Your task to perform on an android device: turn off javascript in the chrome app Image 0: 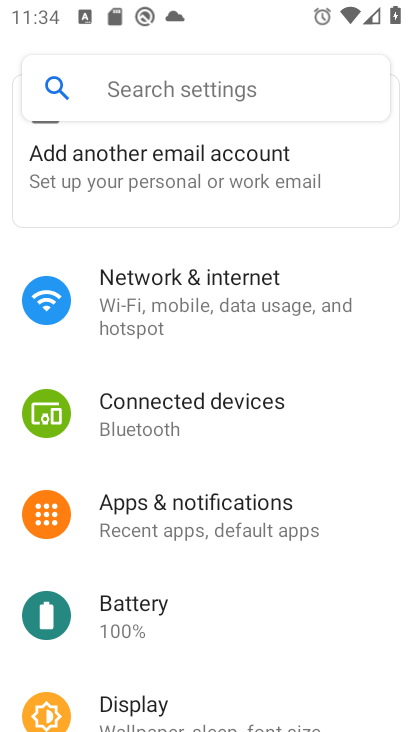
Step 0: press home button
Your task to perform on an android device: turn off javascript in the chrome app Image 1: 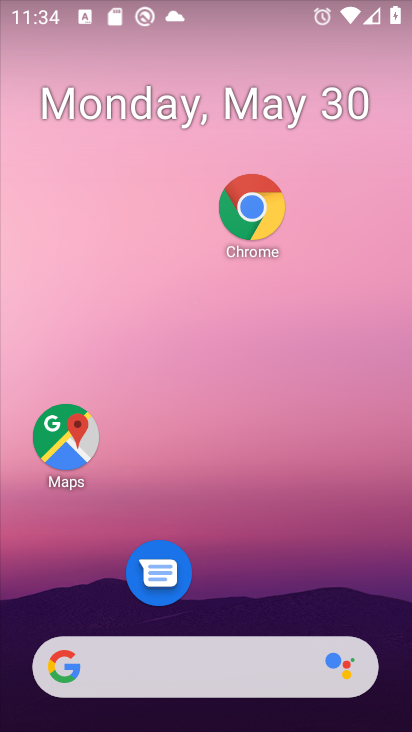
Step 1: drag from (192, 619) to (248, 198)
Your task to perform on an android device: turn off javascript in the chrome app Image 2: 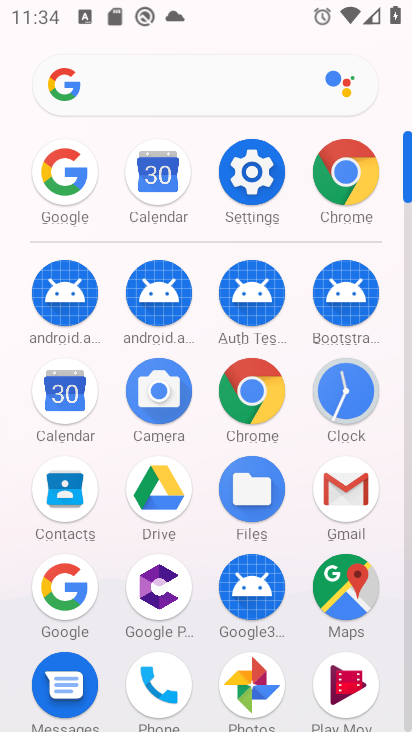
Step 2: click (258, 415)
Your task to perform on an android device: turn off javascript in the chrome app Image 3: 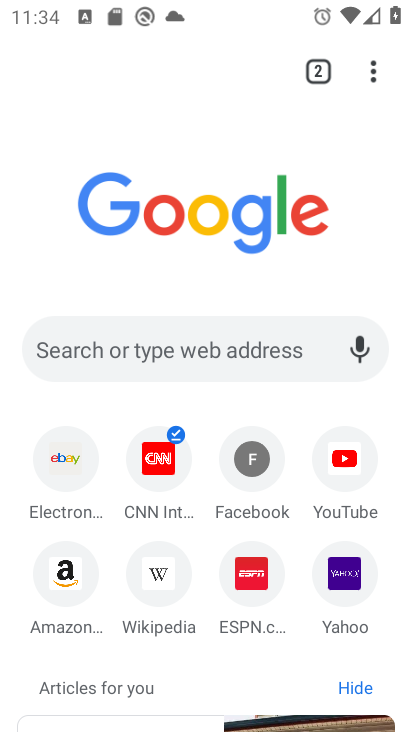
Step 3: click (368, 71)
Your task to perform on an android device: turn off javascript in the chrome app Image 4: 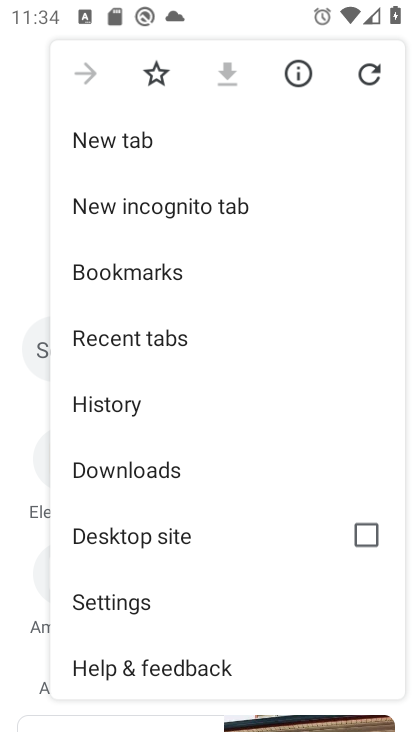
Step 4: drag from (281, 556) to (256, 387)
Your task to perform on an android device: turn off javascript in the chrome app Image 5: 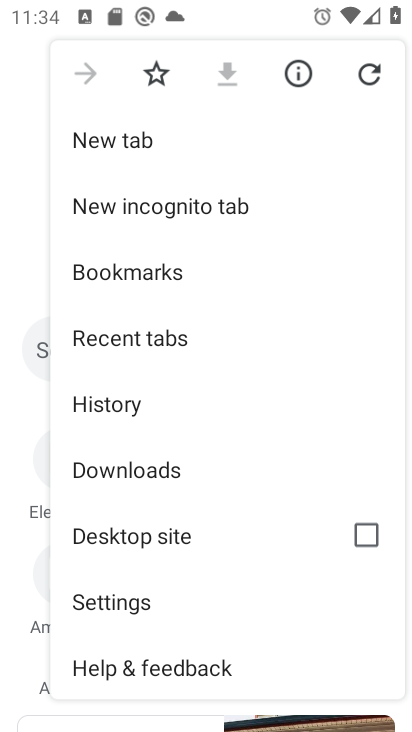
Step 5: click (131, 605)
Your task to perform on an android device: turn off javascript in the chrome app Image 6: 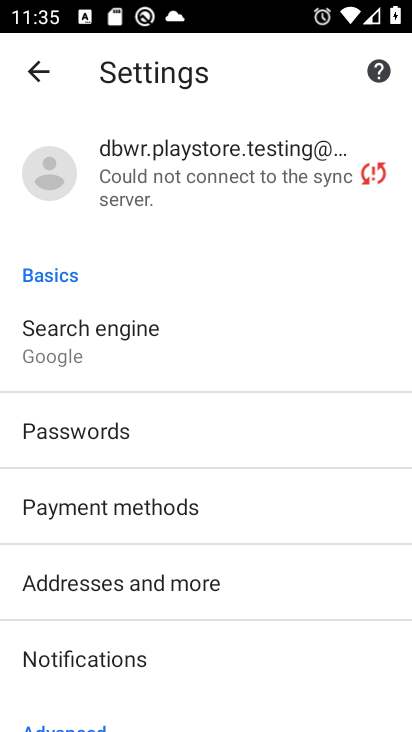
Step 6: drag from (136, 606) to (185, 56)
Your task to perform on an android device: turn off javascript in the chrome app Image 7: 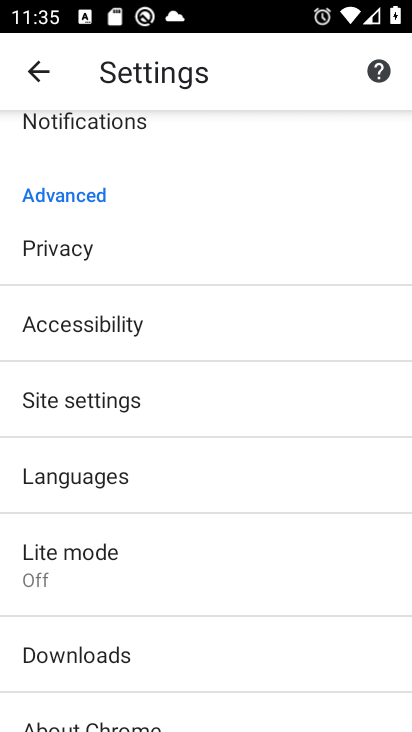
Step 7: drag from (146, 614) to (266, 204)
Your task to perform on an android device: turn off javascript in the chrome app Image 8: 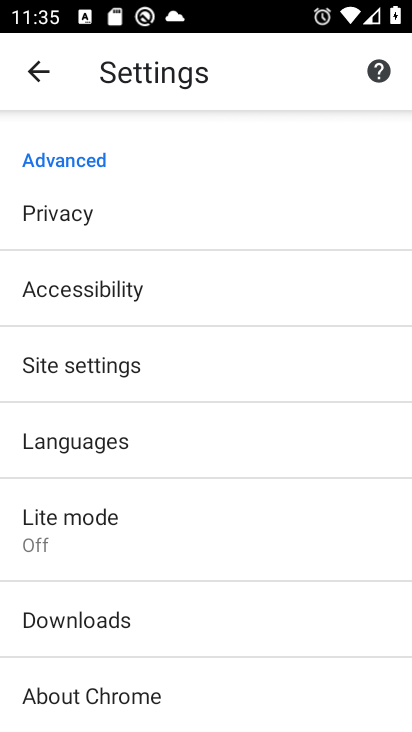
Step 8: click (86, 375)
Your task to perform on an android device: turn off javascript in the chrome app Image 9: 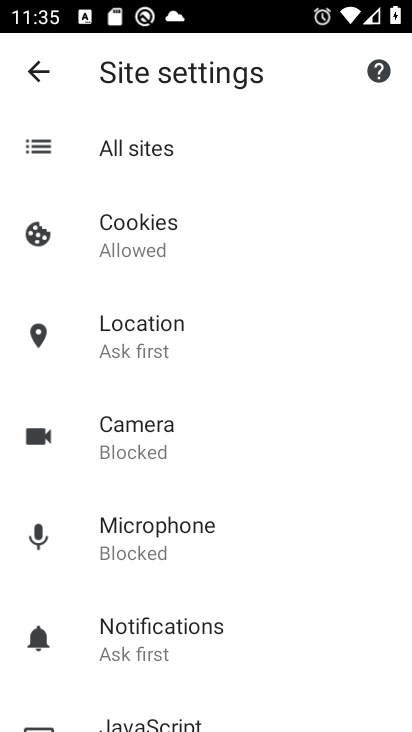
Step 9: drag from (167, 605) to (198, 426)
Your task to perform on an android device: turn off javascript in the chrome app Image 10: 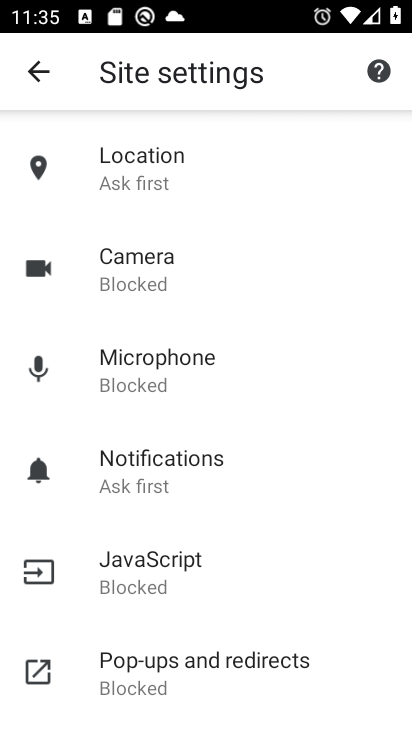
Step 10: click (199, 584)
Your task to perform on an android device: turn off javascript in the chrome app Image 11: 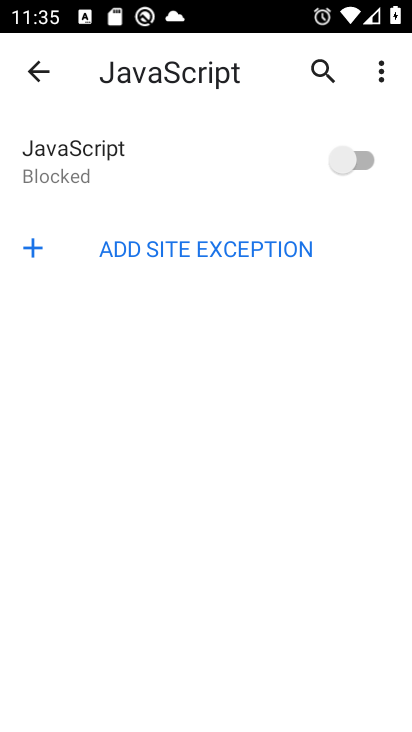
Step 11: task complete